Your task to perform on an android device: toggle data saver in the chrome app Image 0: 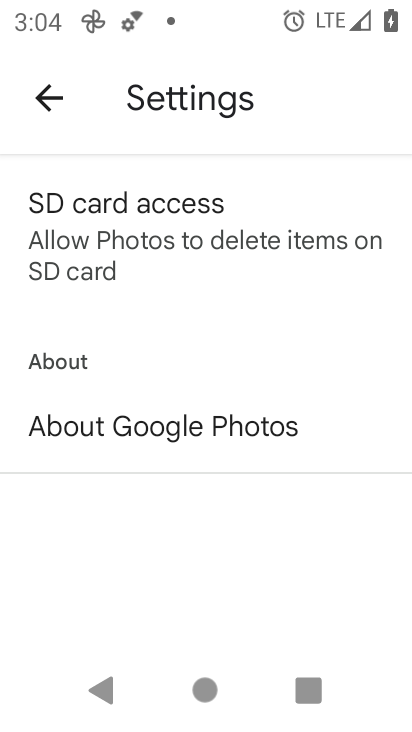
Step 0: press home button
Your task to perform on an android device: toggle data saver in the chrome app Image 1: 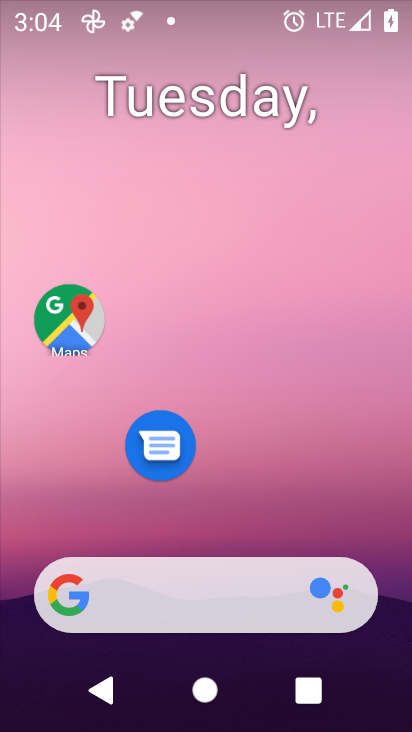
Step 1: drag from (286, 498) to (228, 106)
Your task to perform on an android device: toggle data saver in the chrome app Image 2: 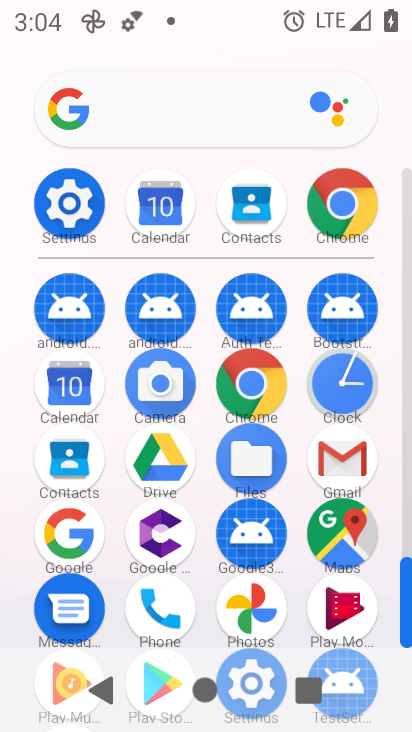
Step 2: click (345, 193)
Your task to perform on an android device: toggle data saver in the chrome app Image 3: 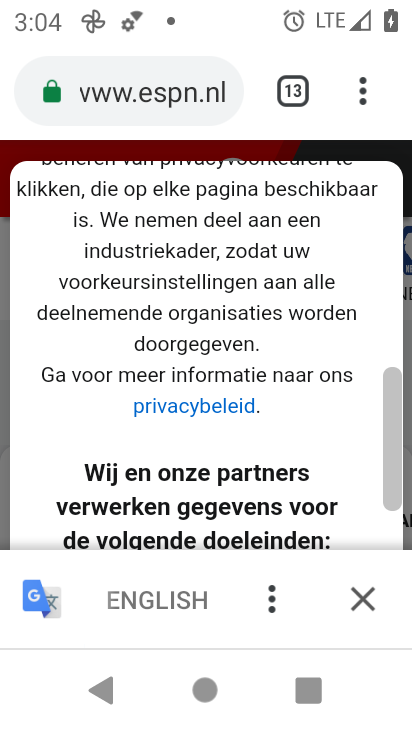
Step 3: click (356, 82)
Your task to perform on an android device: toggle data saver in the chrome app Image 4: 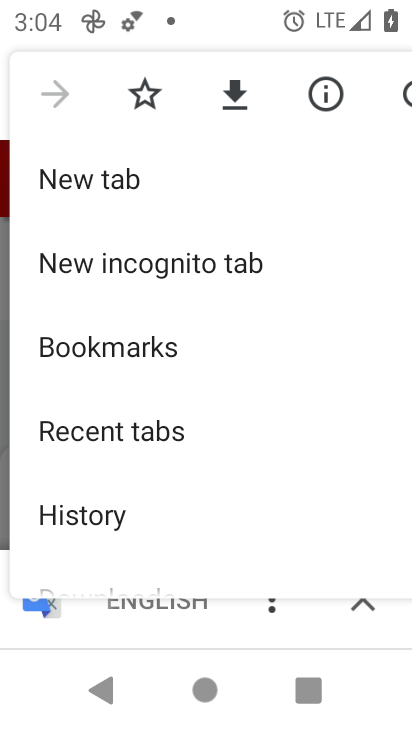
Step 4: drag from (238, 438) to (168, 206)
Your task to perform on an android device: toggle data saver in the chrome app Image 5: 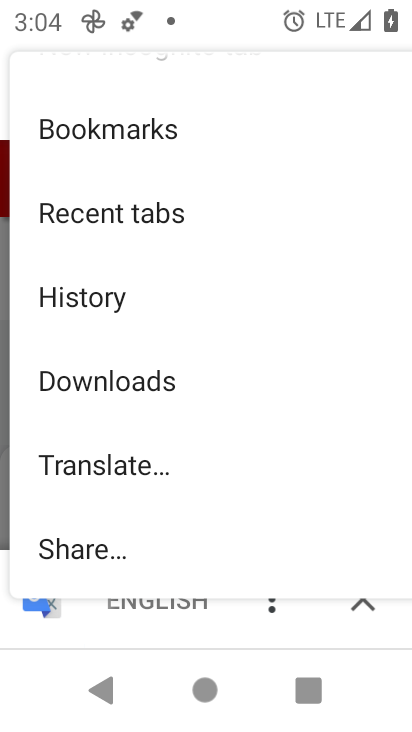
Step 5: drag from (160, 469) to (122, 247)
Your task to perform on an android device: toggle data saver in the chrome app Image 6: 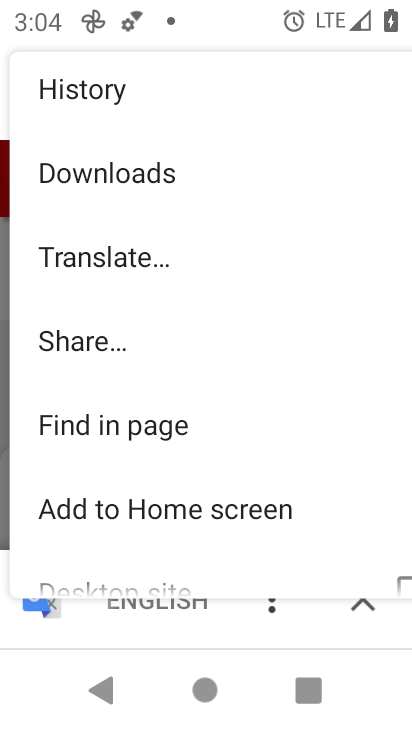
Step 6: drag from (182, 397) to (104, 65)
Your task to perform on an android device: toggle data saver in the chrome app Image 7: 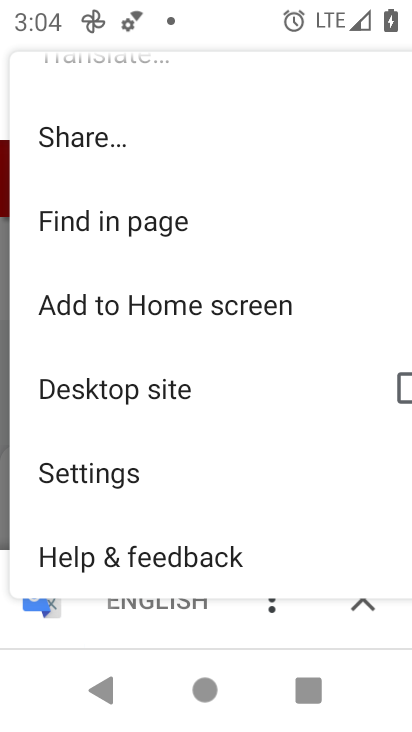
Step 7: click (96, 472)
Your task to perform on an android device: toggle data saver in the chrome app Image 8: 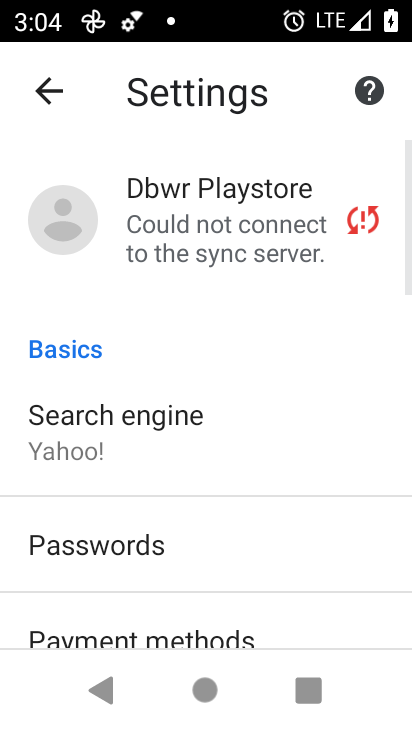
Step 8: drag from (224, 445) to (182, 232)
Your task to perform on an android device: toggle data saver in the chrome app Image 9: 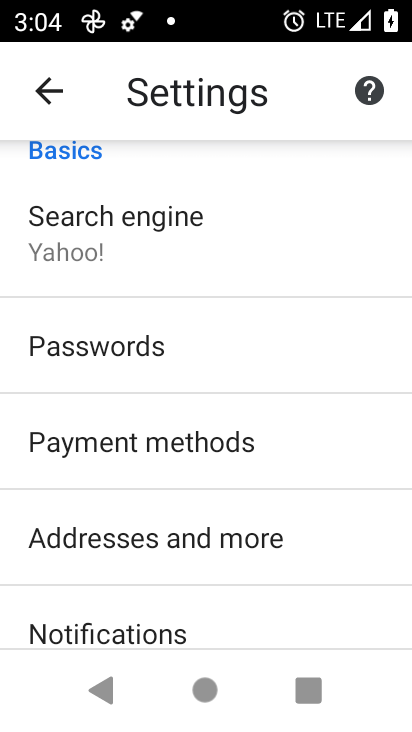
Step 9: drag from (200, 503) to (137, 228)
Your task to perform on an android device: toggle data saver in the chrome app Image 10: 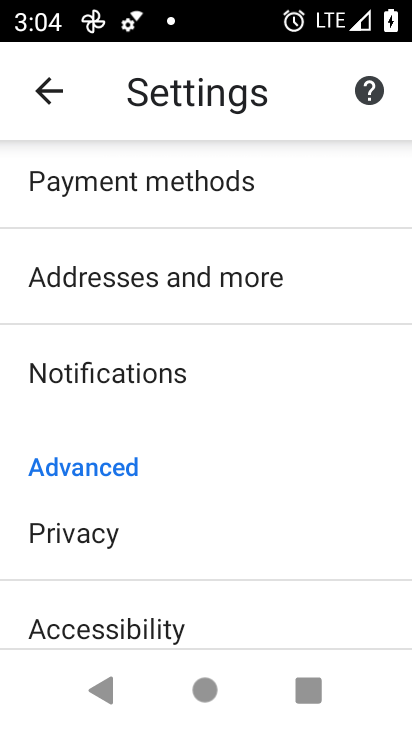
Step 10: drag from (176, 475) to (104, 230)
Your task to perform on an android device: toggle data saver in the chrome app Image 11: 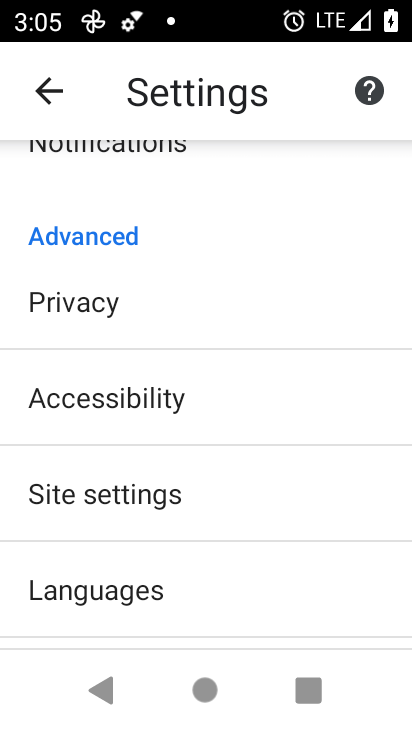
Step 11: drag from (168, 501) to (105, 236)
Your task to perform on an android device: toggle data saver in the chrome app Image 12: 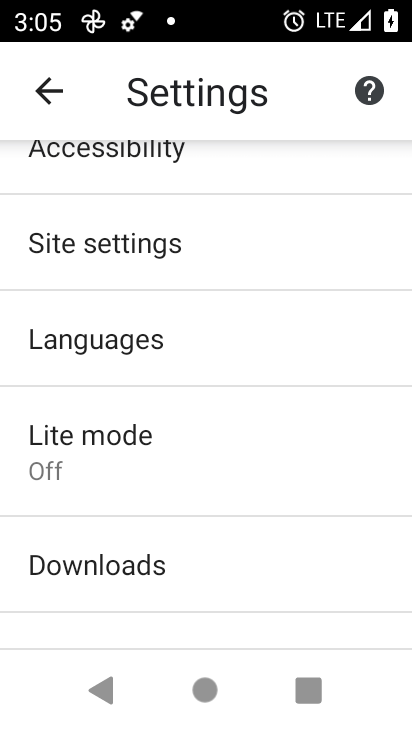
Step 12: click (98, 450)
Your task to perform on an android device: toggle data saver in the chrome app Image 13: 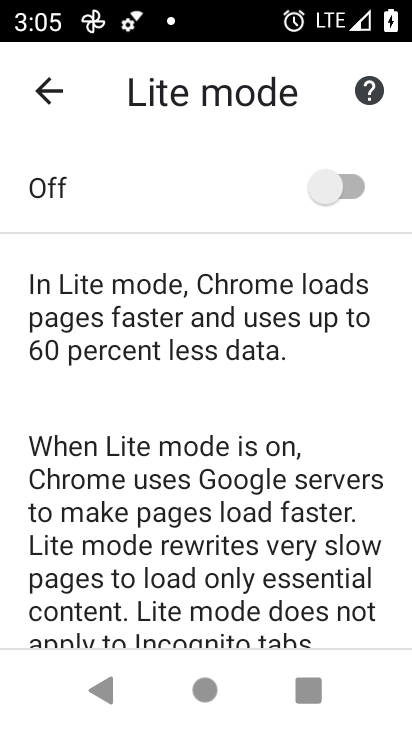
Step 13: click (329, 189)
Your task to perform on an android device: toggle data saver in the chrome app Image 14: 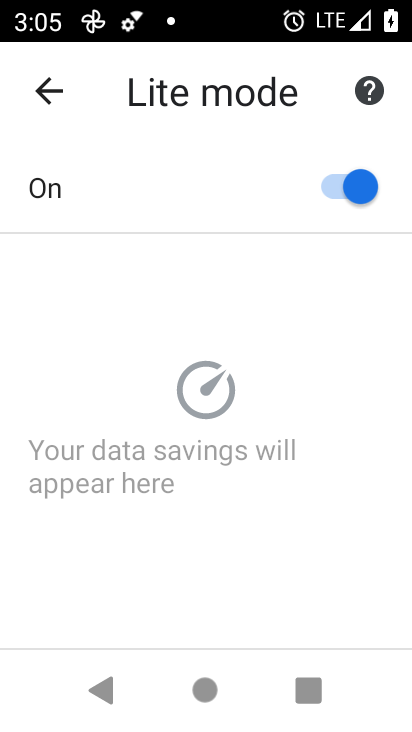
Step 14: task complete